Your task to perform on an android device: Go to Yahoo.com Image 0: 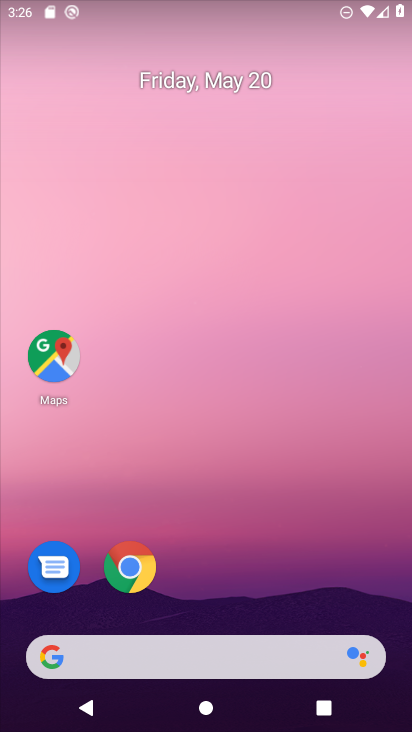
Step 0: click (127, 573)
Your task to perform on an android device: Go to Yahoo.com Image 1: 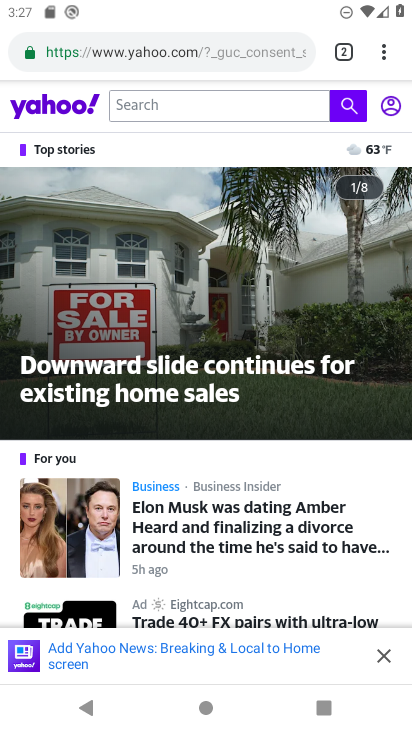
Step 1: task complete